Your task to perform on an android device: Show me the alarms in the clock app Image 0: 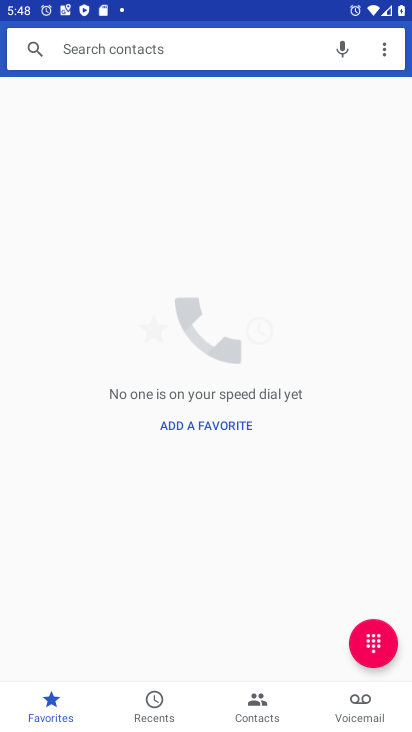
Step 0: press home button
Your task to perform on an android device: Show me the alarms in the clock app Image 1: 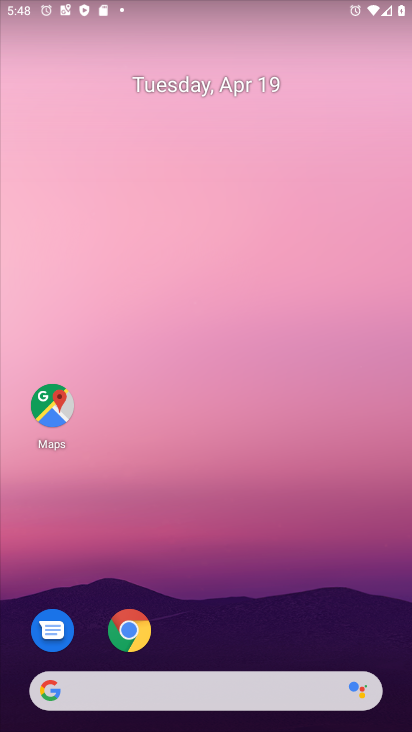
Step 1: drag from (252, 399) to (187, 23)
Your task to perform on an android device: Show me the alarms in the clock app Image 2: 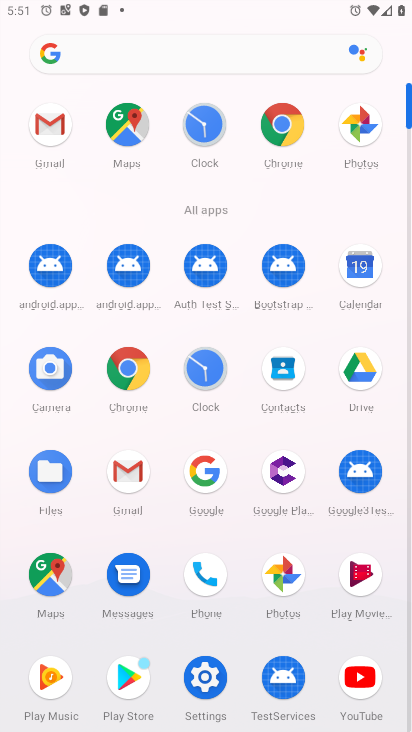
Step 2: click (198, 371)
Your task to perform on an android device: Show me the alarms in the clock app Image 3: 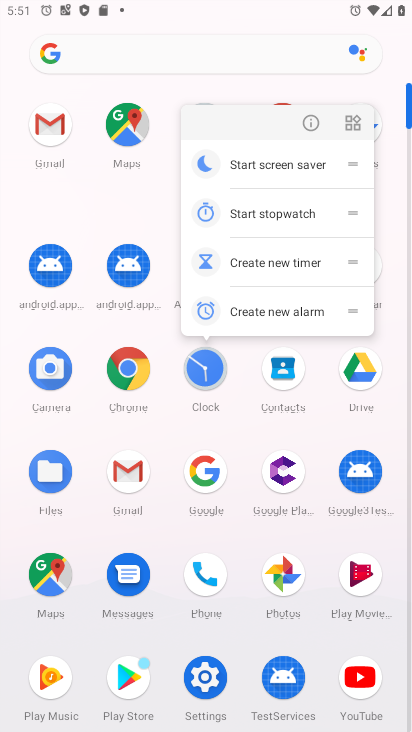
Step 3: click (198, 371)
Your task to perform on an android device: Show me the alarms in the clock app Image 4: 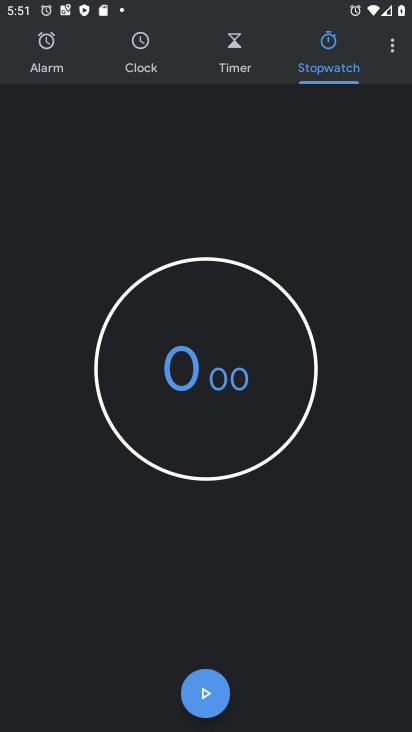
Step 4: click (55, 48)
Your task to perform on an android device: Show me the alarms in the clock app Image 5: 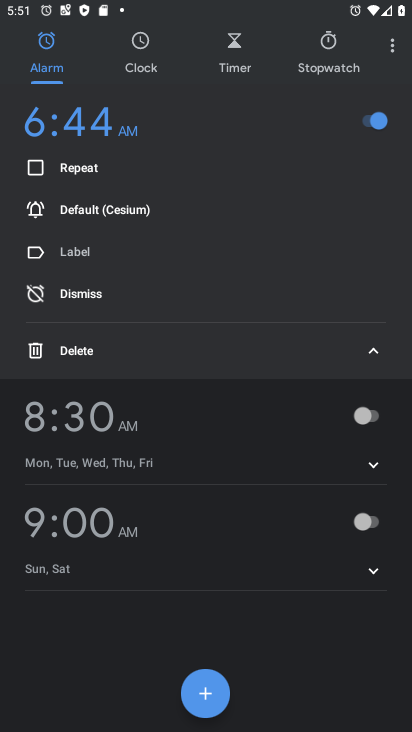
Step 5: task complete